Your task to perform on an android device: What is the recent news? Image 0: 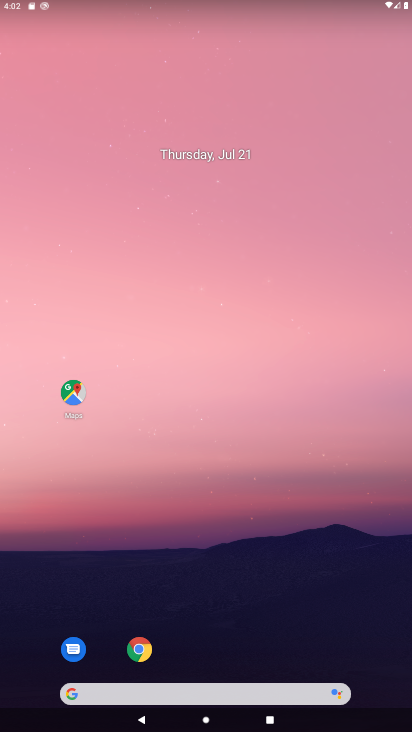
Step 0: click (156, 689)
Your task to perform on an android device: What is the recent news? Image 1: 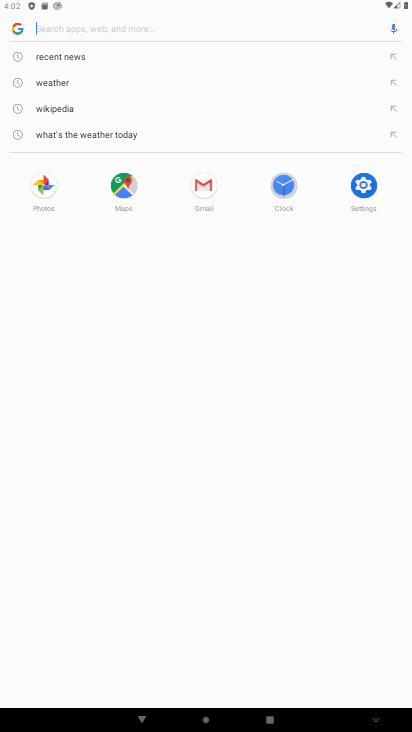
Step 1: click (68, 55)
Your task to perform on an android device: What is the recent news? Image 2: 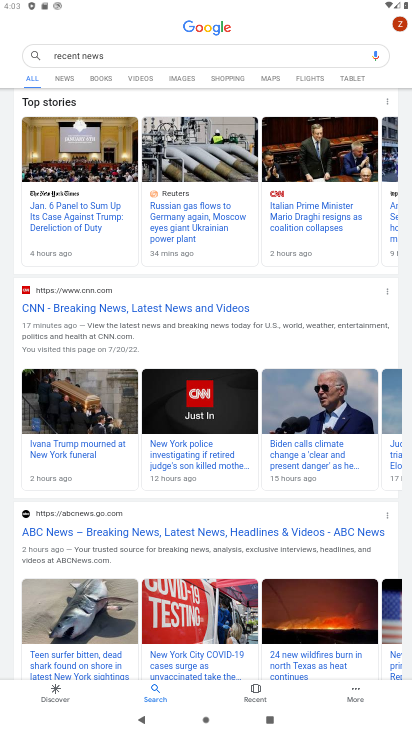
Step 2: task complete